Your task to perform on an android device: Search for Italian restaurants on Maps Image 0: 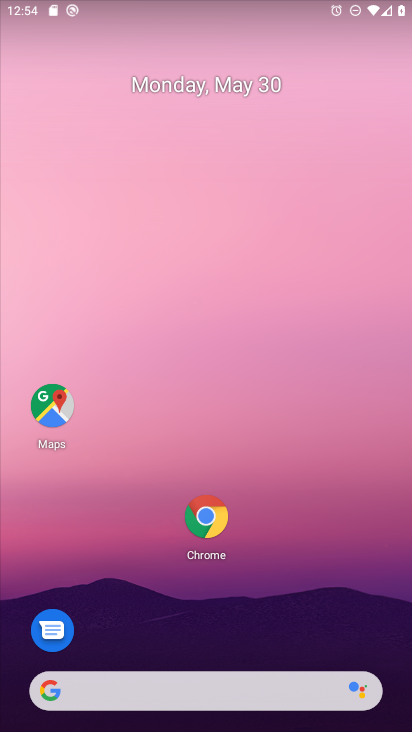
Step 0: press home button
Your task to perform on an android device: Search for Italian restaurants on Maps Image 1: 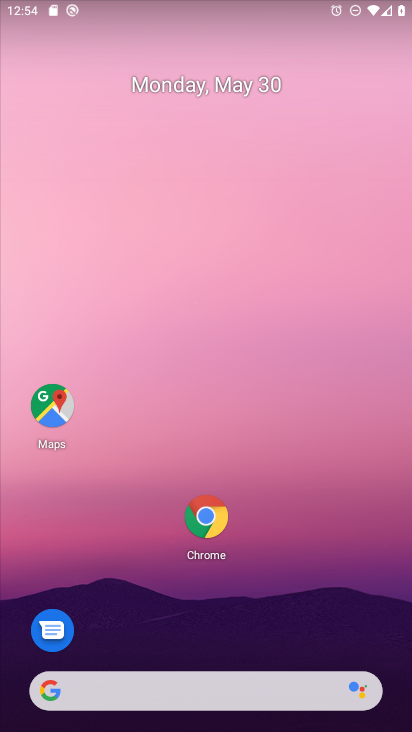
Step 1: click (49, 413)
Your task to perform on an android device: Search for Italian restaurants on Maps Image 2: 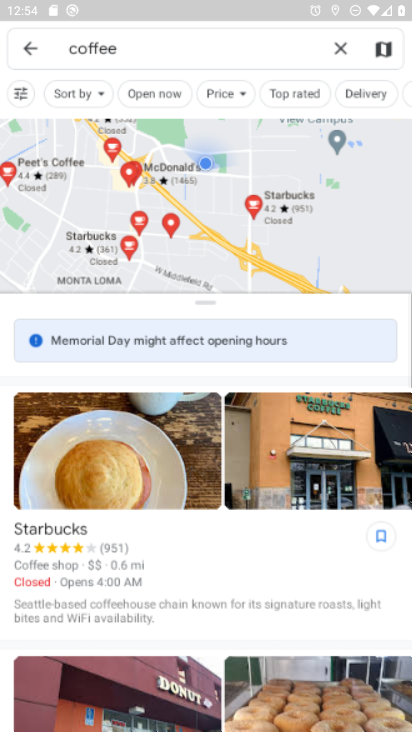
Step 2: click (339, 42)
Your task to perform on an android device: Search for Italian restaurants on Maps Image 3: 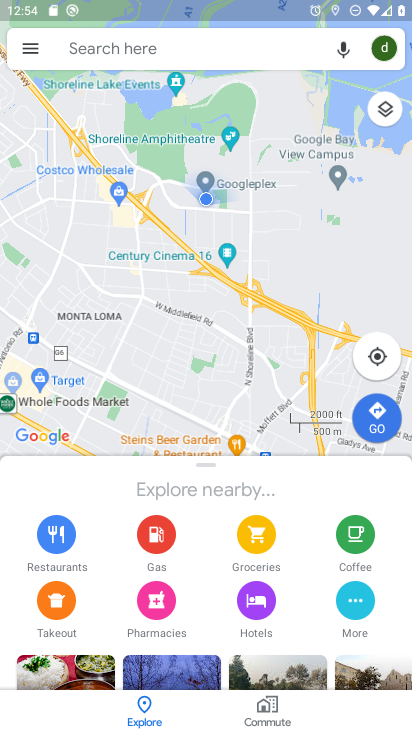
Step 3: click (221, 49)
Your task to perform on an android device: Search for Italian restaurants on Maps Image 4: 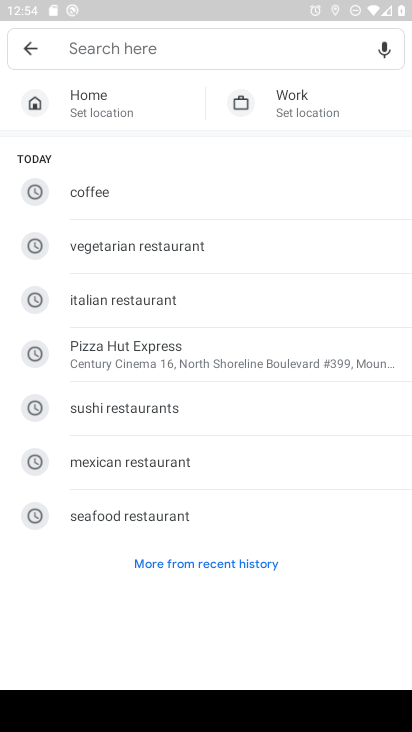
Step 4: click (140, 297)
Your task to perform on an android device: Search for Italian restaurants on Maps Image 5: 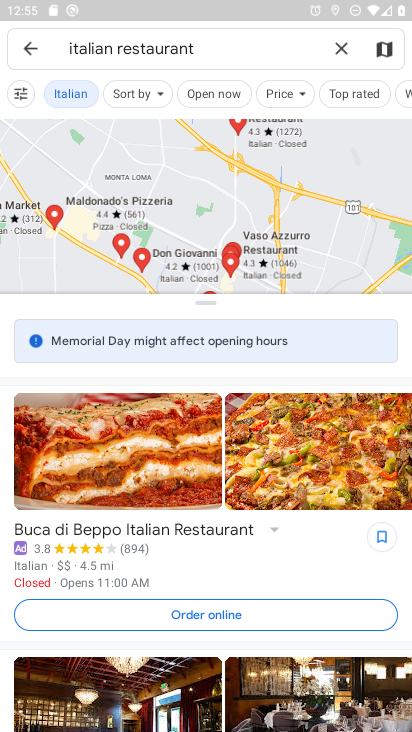
Step 5: task complete